Your task to perform on an android device: Open the stopwatch Image 0: 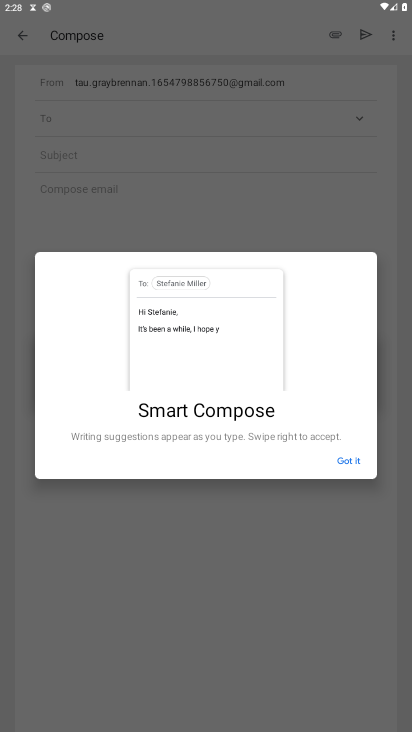
Step 0: click (347, 455)
Your task to perform on an android device: Open the stopwatch Image 1: 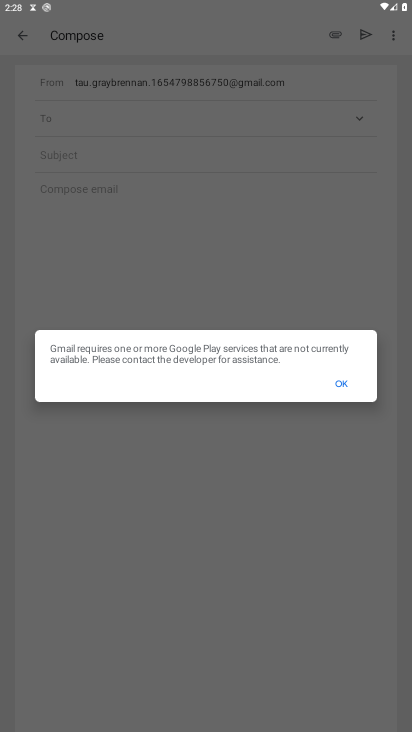
Step 1: press home button
Your task to perform on an android device: Open the stopwatch Image 2: 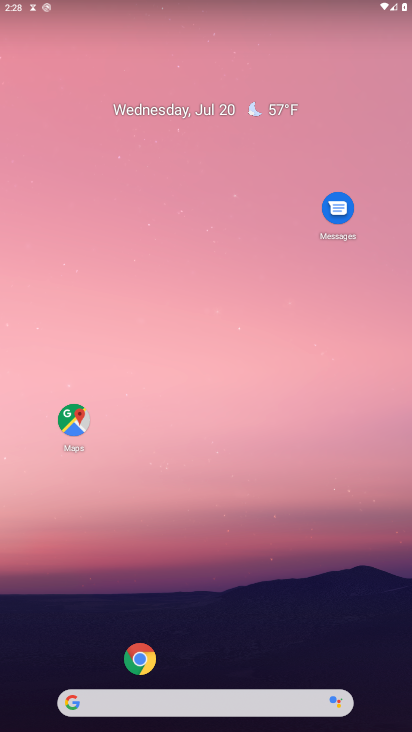
Step 2: drag from (57, 668) to (266, 11)
Your task to perform on an android device: Open the stopwatch Image 3: 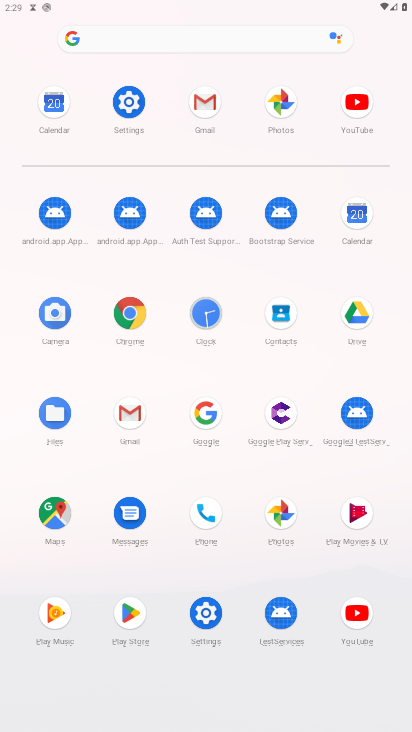
Step 3: click (210, 323)
Your task to perform on an android device: Open the stopwatch Image 4: 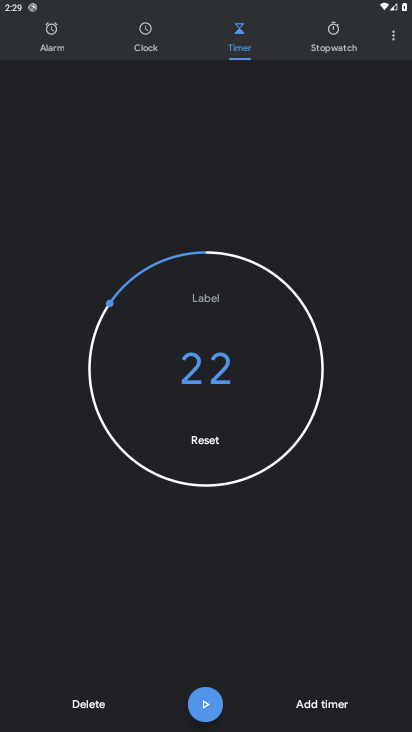
Step 4: click (204, 381)
Your task to perform on an android device: Open the stopwatch Image 5: 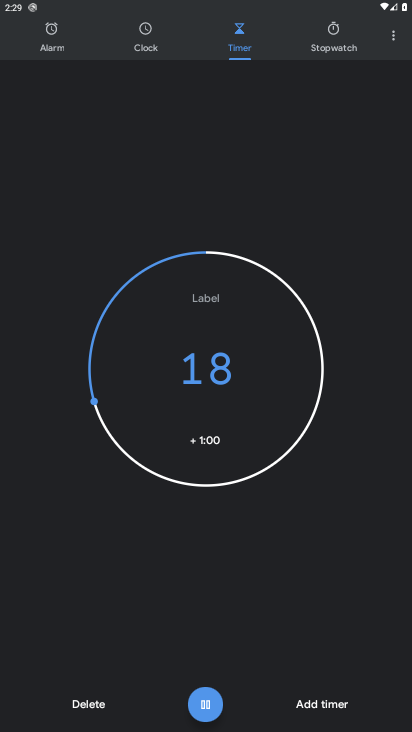
Step 5: click (202, 706)
Your task to perform on an android device: Open the stopwatch Image 6: 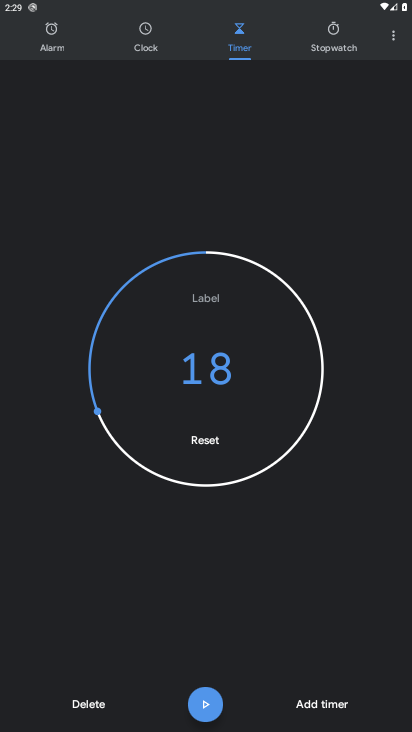
Step 6: task complete